Your task to perform on an android device: turn on priority inbox in the gmail app Image 0: 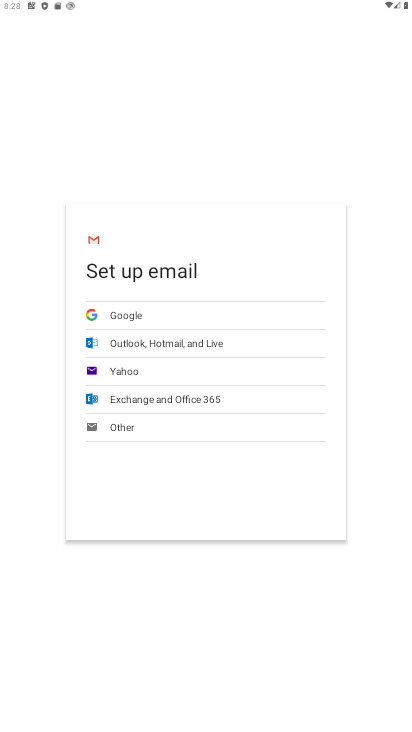
Step 0: press home button
Your task to perform on an android device: turn on priority inbox in the gmail app Image 1: 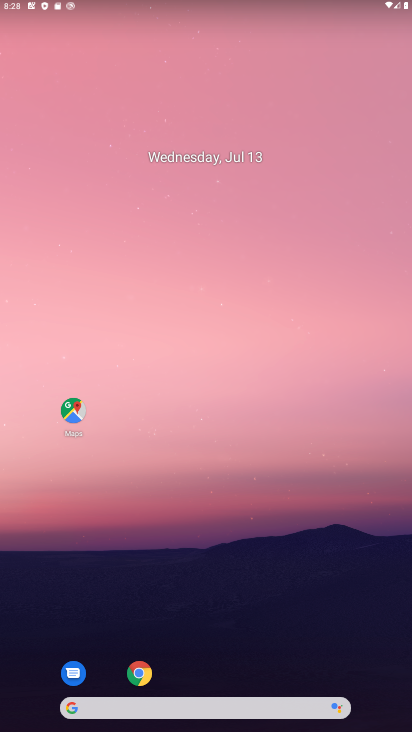
Step 1: drag from (321, 611) to (278, 57)
Your task to perform on an android device: turn on priority inbox in the gmail app Image 2: 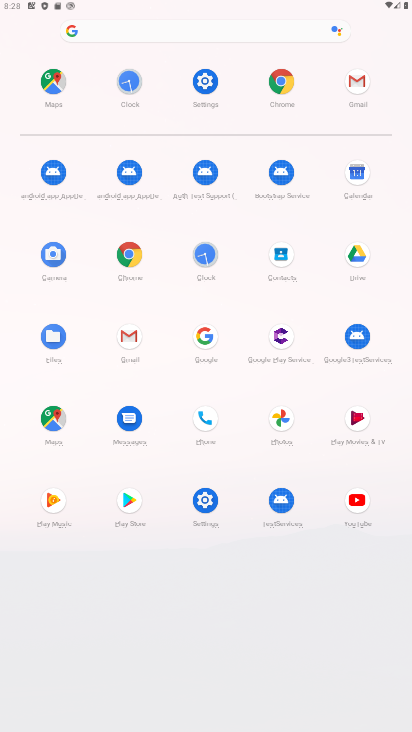
Step 2: click (361, 80)
Your task to perform on an android device: turn on priority inbox in the gmail app Image 3: 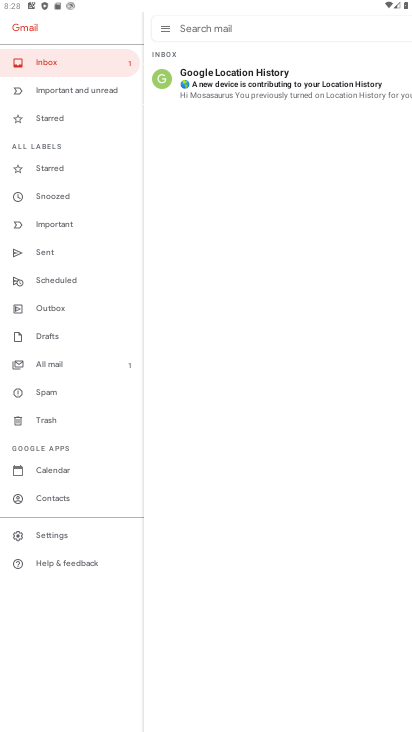
Step 3: click (46, 531)
Your task to perform on an android device: turn on priority inbox in the gmail app Image 4: 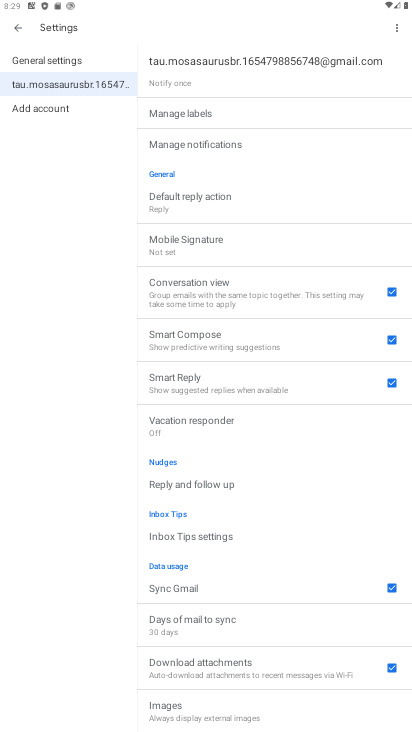
Step 4: drag from (261, 103) to (224, 458)
Your task to perform on an android device: turn on priority inbox in the gmail app Image 5: 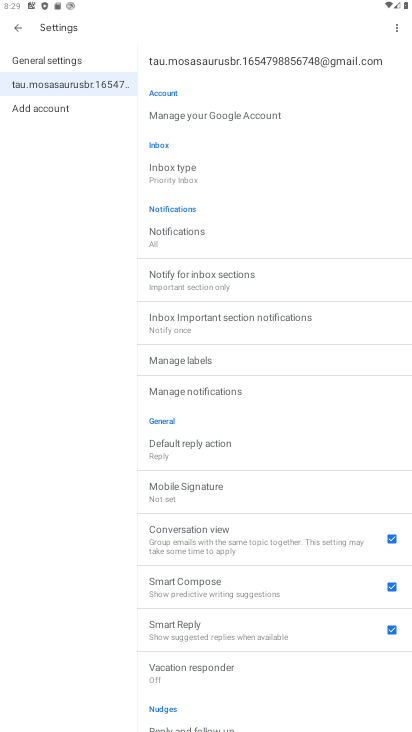
Step 5: click (173, 179)
Your task to perform on an android device: turn on priority inbox in the gmail app Image 6: 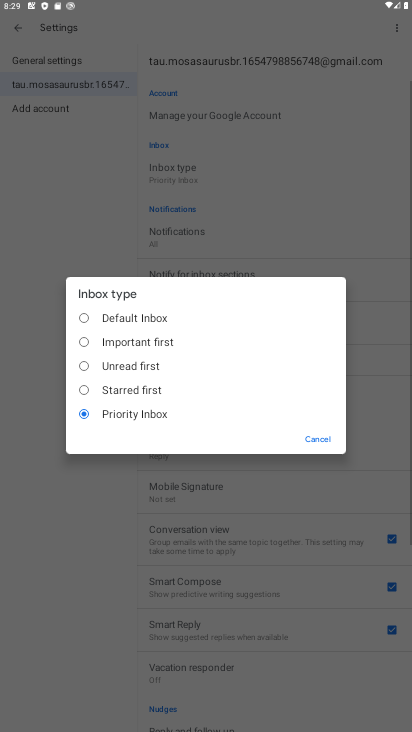
Step 6: task complete